Your task to perform on an android device: Find coffee shops on Maps Image 0: 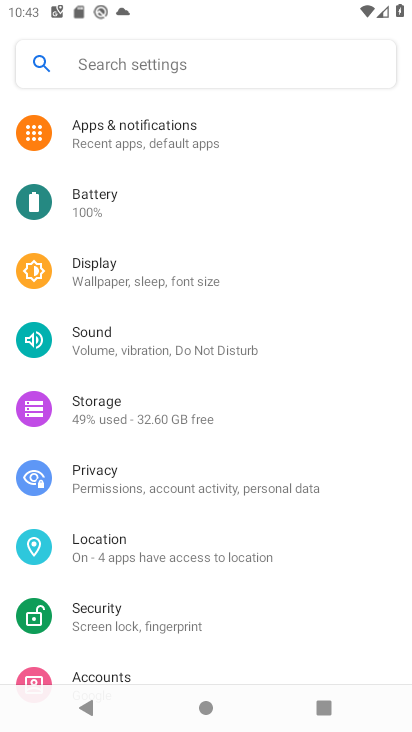
Step 0: press home button
Your task to perform on an android device: Find coffee shops on Maps Image 1: 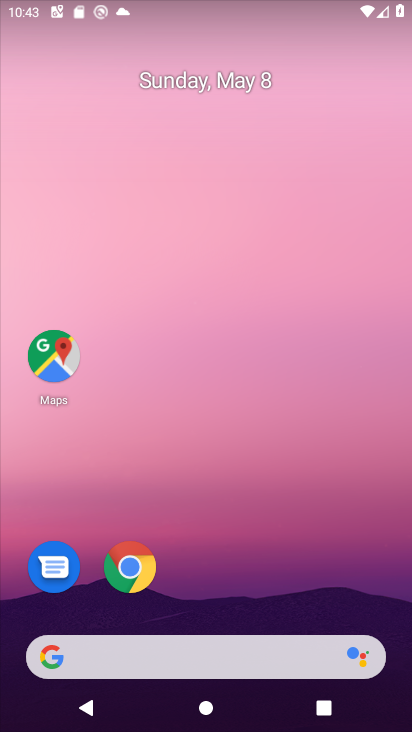
Step 1: drag from (236, 567) to (245, 112)
Your task to perform on an android device: Find coffee shops on Maps Image 2: 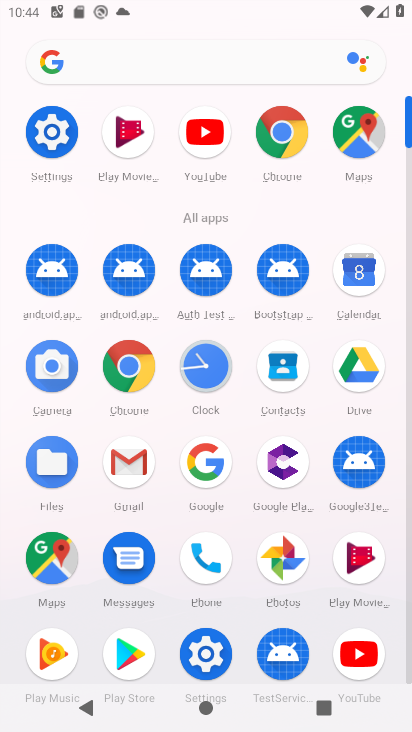
Step 2: click (361, 161)
Your task to perform on an android device: Find coffee shops on Maps Image 3: 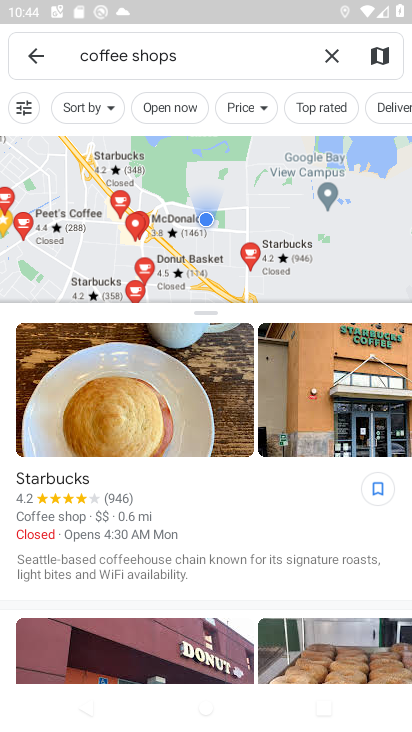
Step 3: task complete